Your task to perform on an android device: Go to network settings Image 0: 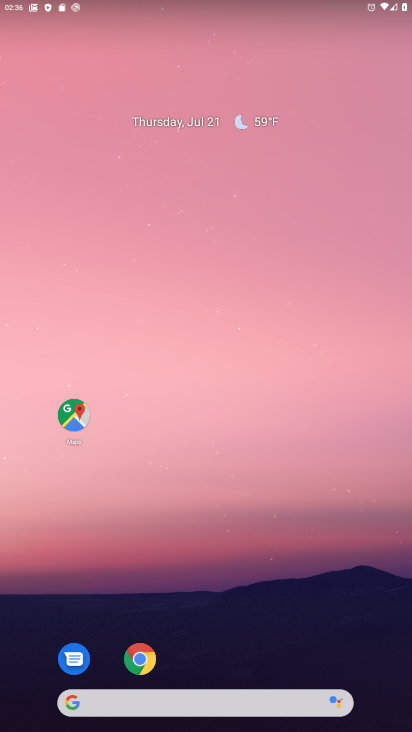
Step 0: drag from (298, 633) to (242, 178)
Your task to perform on an android device: Go to network settings Image 1: 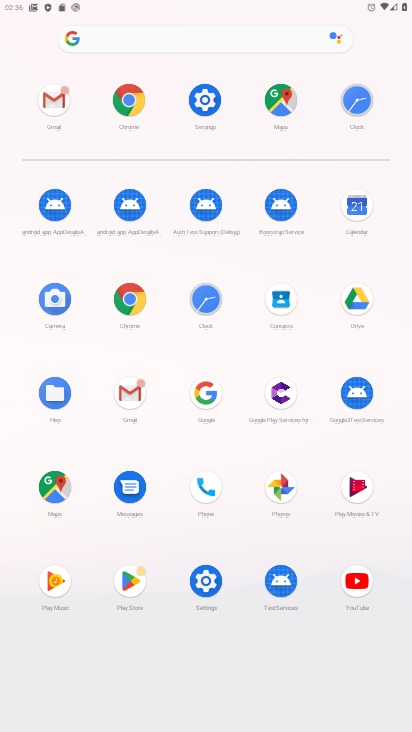
Step 1: click (214, 96)
Your task to perform on an android device: Go to network settings Image 2: 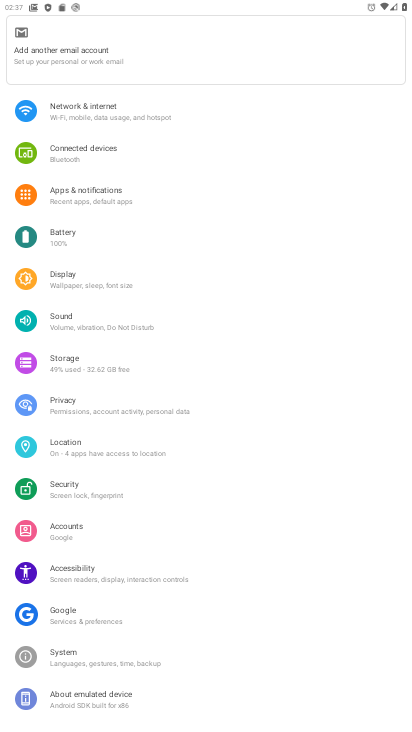
Step 2: click (117, 113)
Your task to perform on an android device: Go to network settings Image 3: 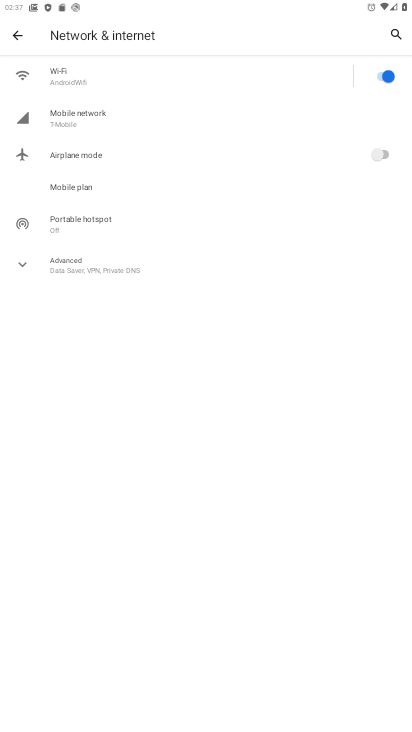
Step 3: task complete